Your task to perform on an android device: Toggle the flashlight Image 0: 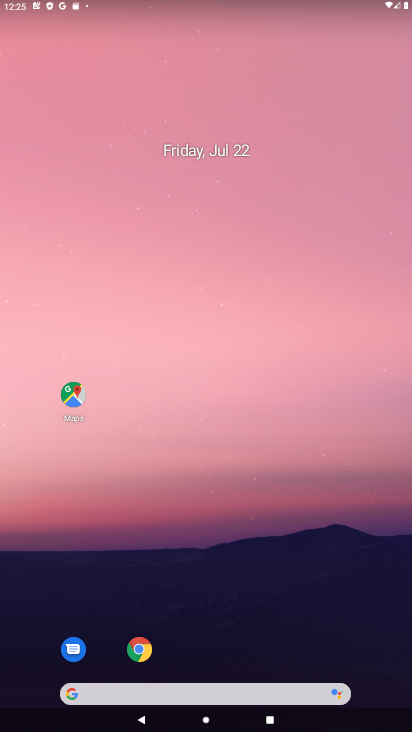
Step 0: drag from (220, 730) to (213, 45)
Your task to perform on an android device: Toggle the flashlight Image 1: 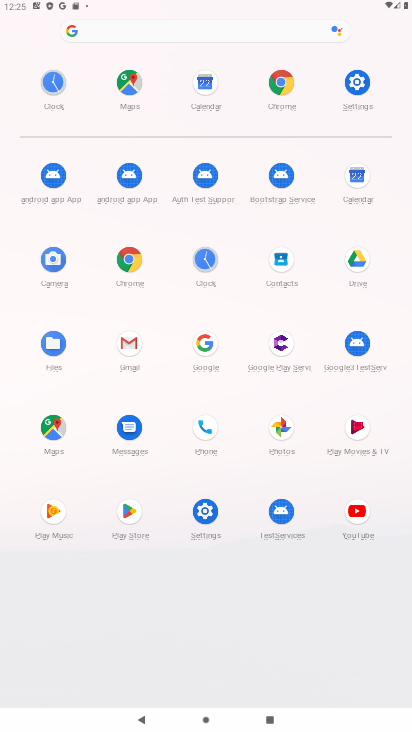
Step 1: click (362, 90)
Your task to perform on an android device: Toggle the flashlight Image 2: 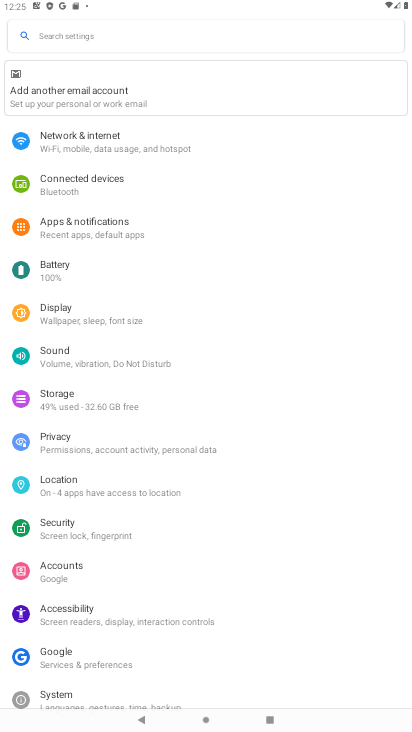
Step 2: task complete